Your task to perform on an android device: Do I have any events tomorrow? Image 0: 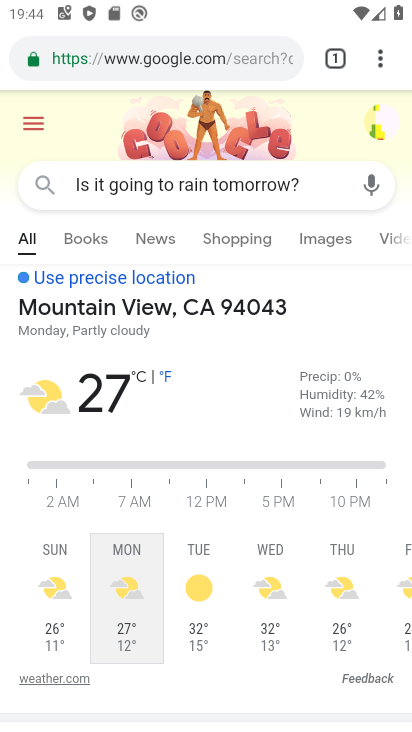
Step 0: press back button
Your task to perform on an android device: Do I have any events tomorrow? Image 1: 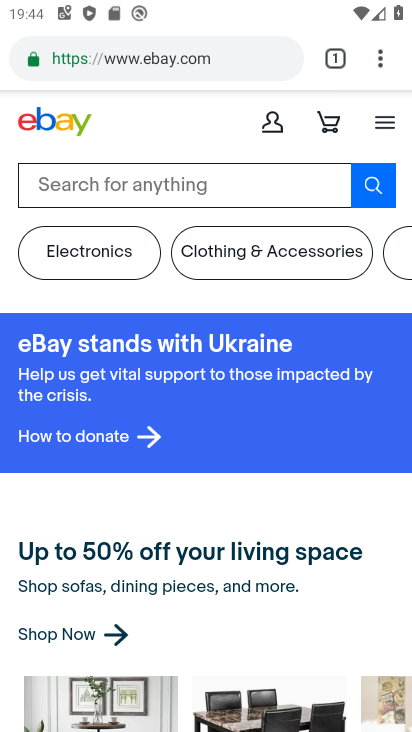
Step 1: press back button
Your task to perform on an android device: Do I have any events tomorrow? Image 2: 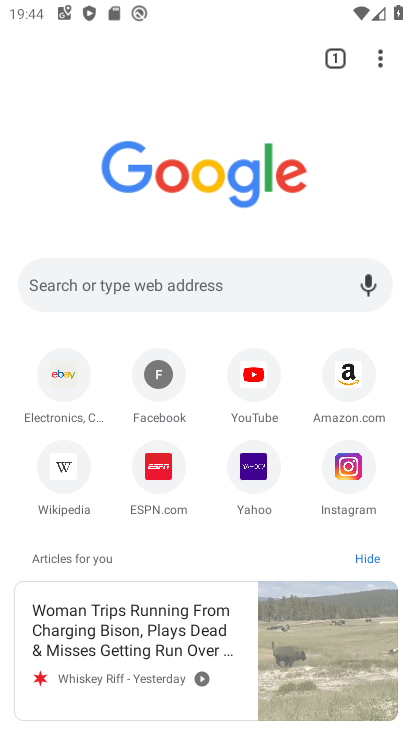
Step 2: press home button
Your task to perform on an android device: Do I have any events tomorrow? Image 3: 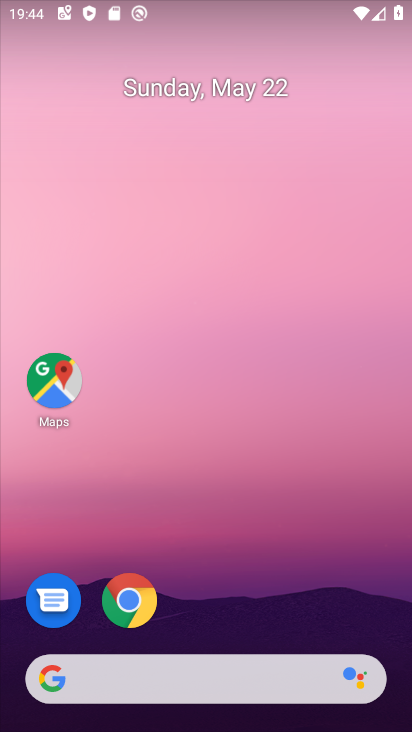
Step 3: drag from (224, 592) to (253, 34)
Your task to perform on an android device: Do I have any events tomorrow? Image 4: 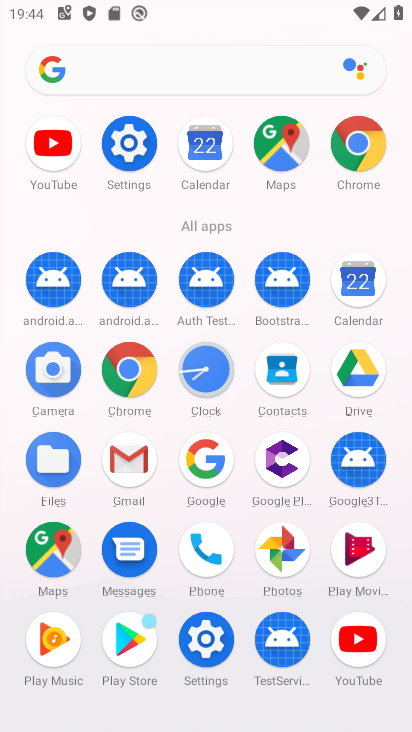
Step 4: click (361, 279)
Your task to perform on an android device: Do I have any events tomorrow? Image 5: 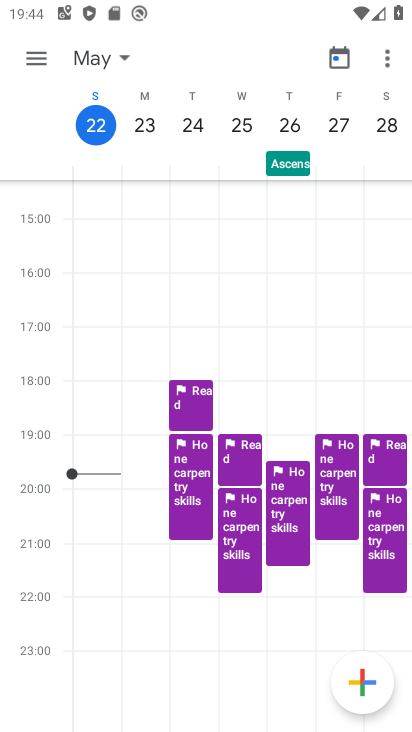
Step 5: click (136, 108)
Your task to perform on an android device: Do I have any events tomorrow? Image 6: 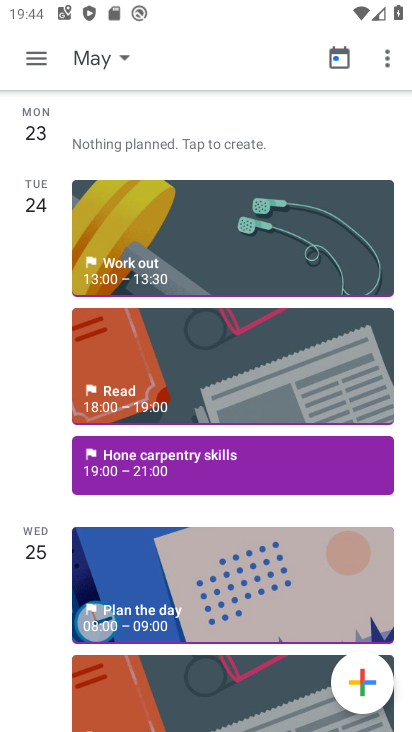
Step 6: task complete